Your task to perform on an android device: Go to Maps Image 0: 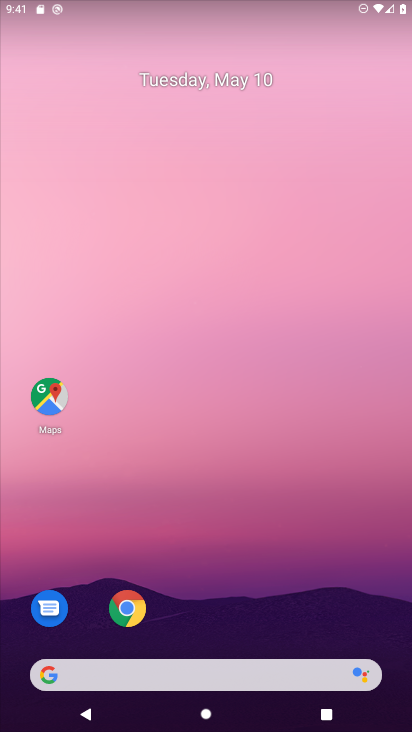
Step 0: drag from (388, 625) to (292, 72)
Your task to perform on an android device: Go to Maps Image 1: 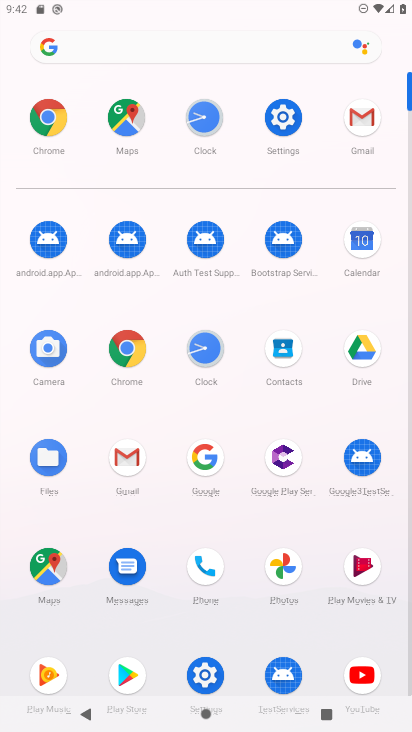
Step 1: click (129, 128)
Your task to perform on an android device: Go to Maps Image 2: 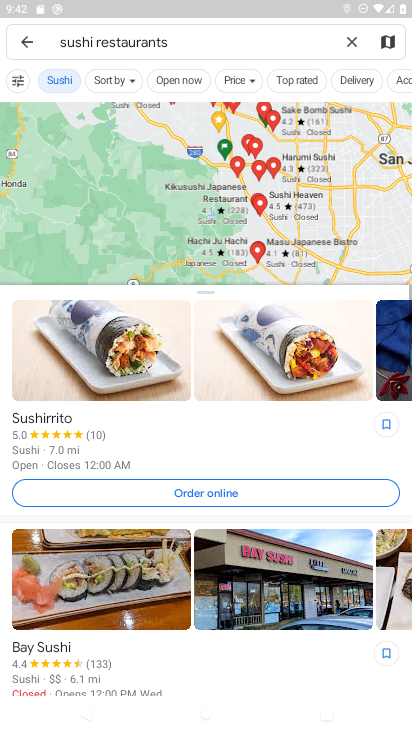
Step 2: click (352, 41)
Your task to perform on an android device: Go to Maps Image 3: 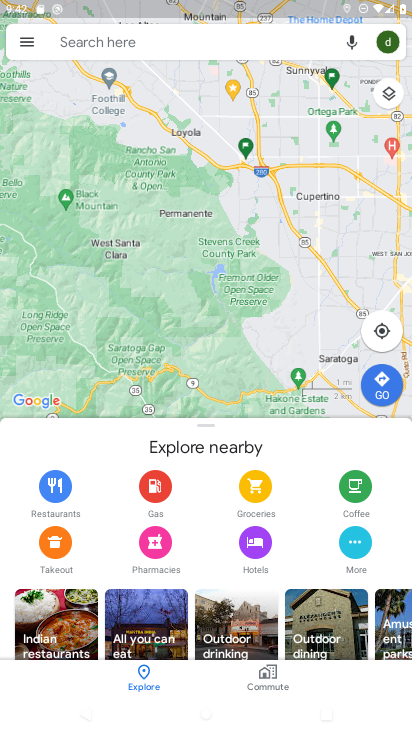
Step 3: task complete